Your task to perform on an android device: turn off improve location accuracy Image 0: 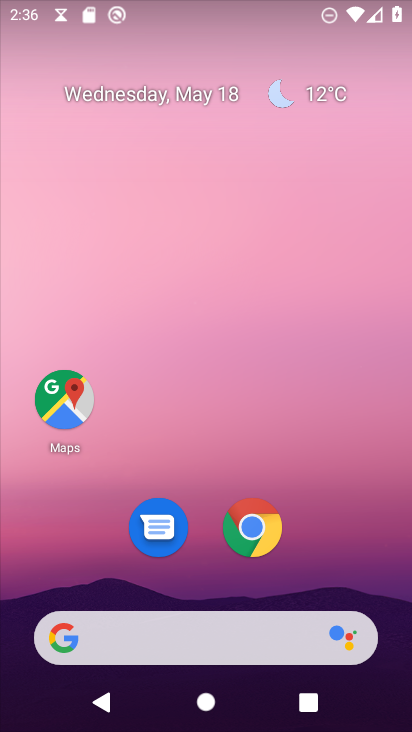
Step 0: drag from (350, 550) to (242, 42)
Your task to perform on an android device: turn off improve location accuracy Image 1: 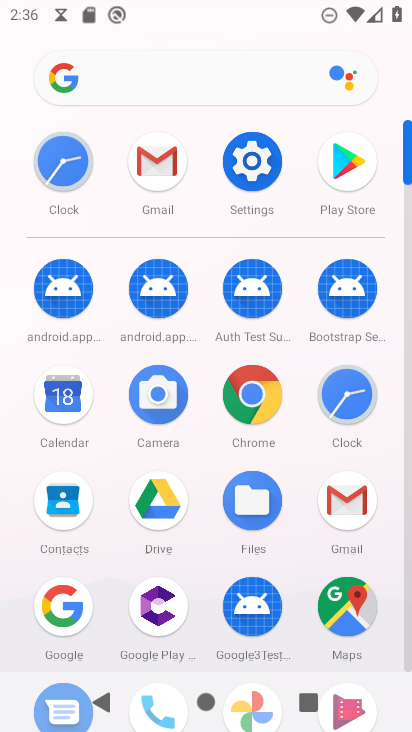
Step 1: click (262, 154)
Your task to perform on an android device: turn off improve location accuracy Image 2: 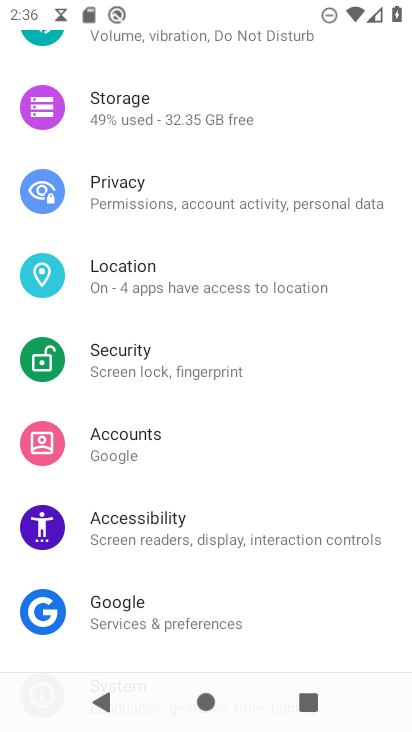
Step 2: click (174, 289)
Your task to perform on an android device: turn off improve location accuracy Image 3: 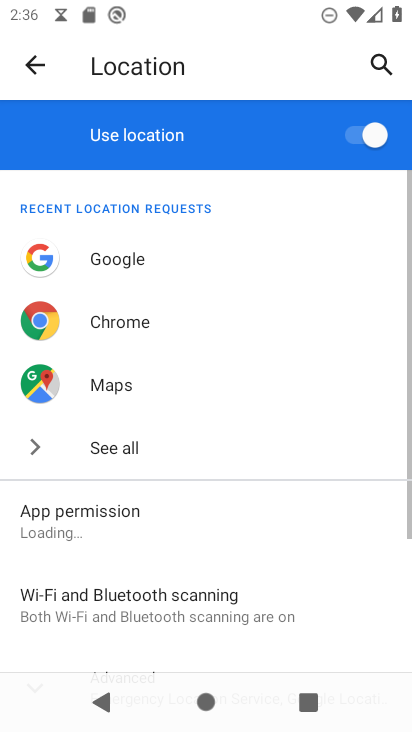
Step 3: drag from (276, 535) to (250, 157)
Your task to perform on an android device: turn off improve location accuracy Image 4: 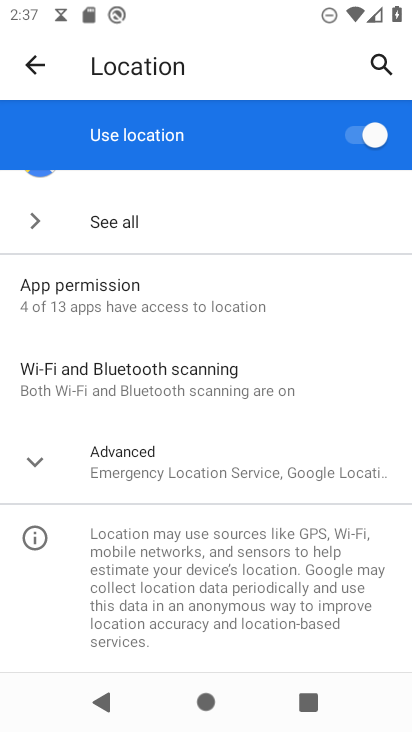
Step 4: click (191, 463)
Your task to perform on an android device: turn off improve location accuracy Image 5: 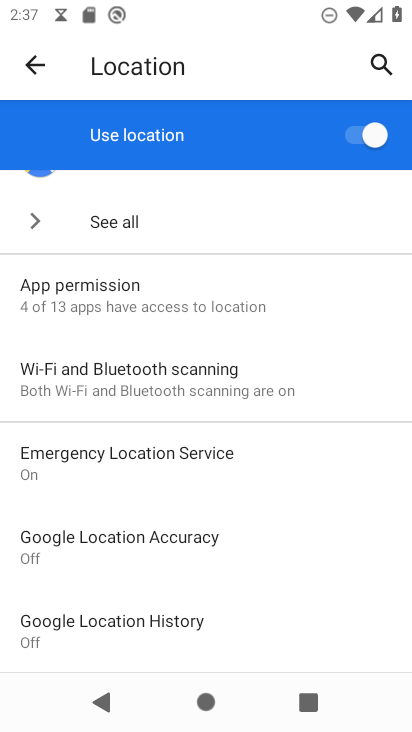
Step 5: click (217, 534)
Your task to perform on an android device: turn off improve location accuracy Image 6: 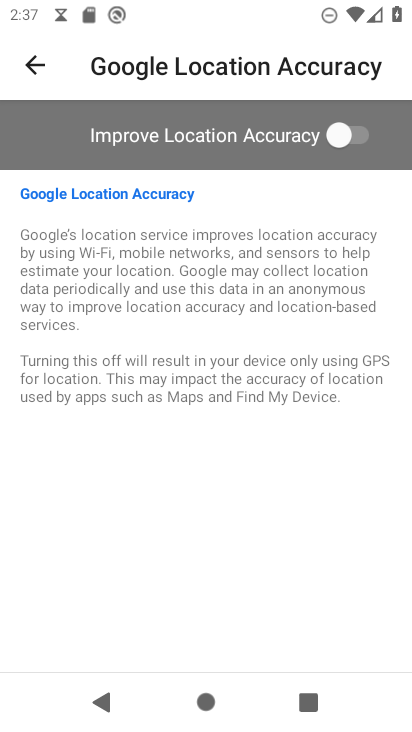
Step 6: task complete